Your task to perform on an android device: toggle improve location accuracy Image 0: 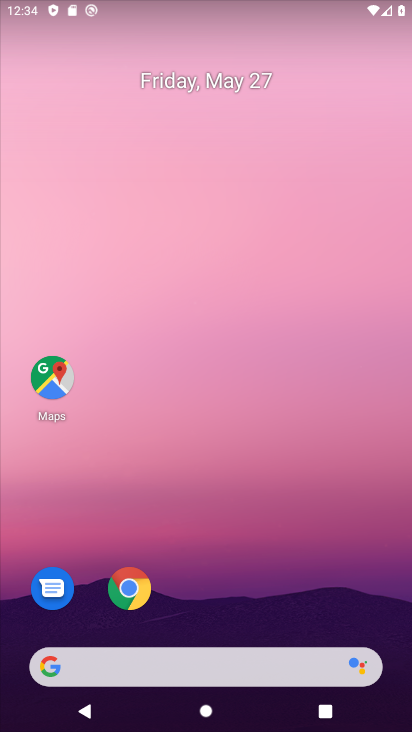
Step 0: press home button
Your task to perform on an android device: toggle improve location accuracy Image 1: 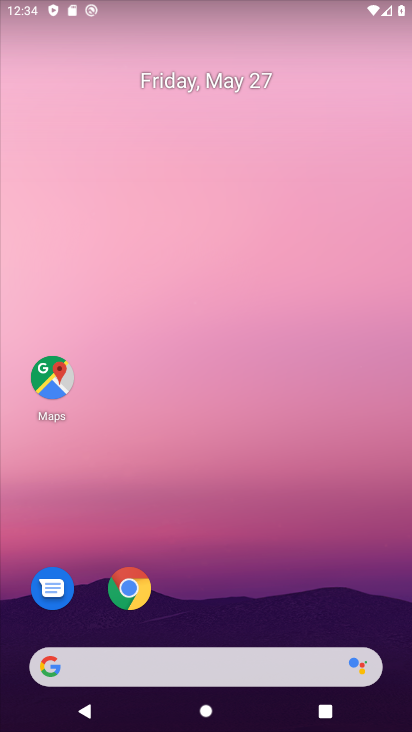
Step 1: drag from (224, 630) to (207, 94)
Your task to perform on an android device: toggle improve location accuracy Image 2: 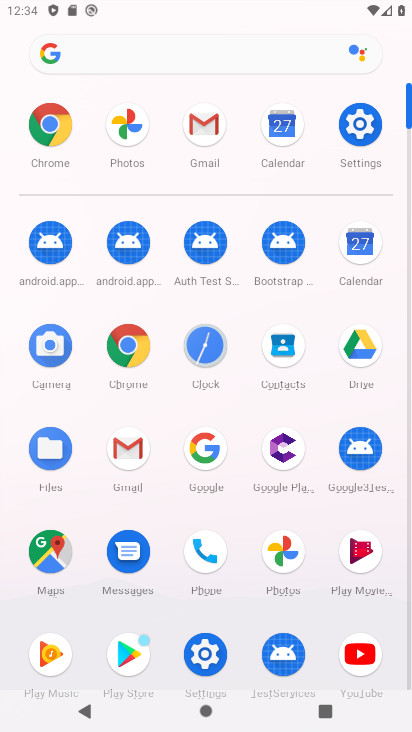
Step 2: click (360, 120)
Your task to perform on an android device: toggle improve location accuracy Image 3: 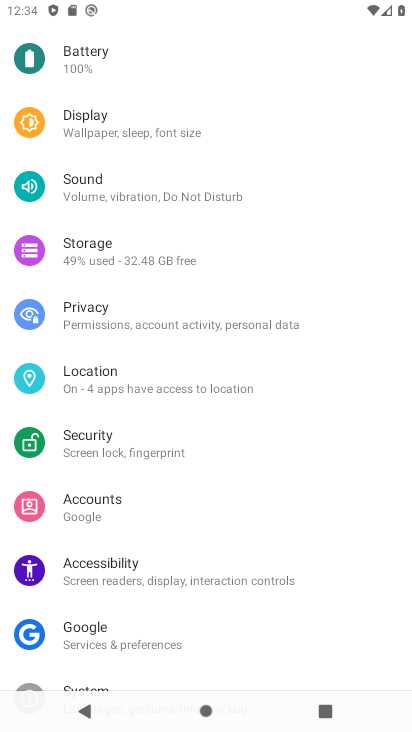
Step 3: click (129, 368)
Your task to perform on an android device: toggle improve location accuracy Image 4: 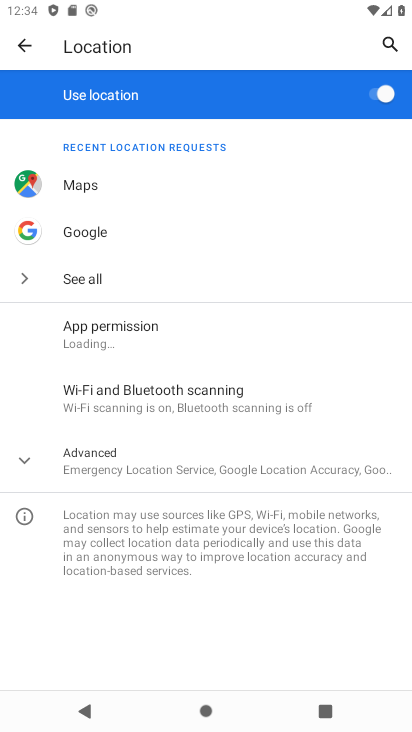
Step 4: click (22, 459)
Your task to perform on an android device: toggle improve location accuracy Image 5: 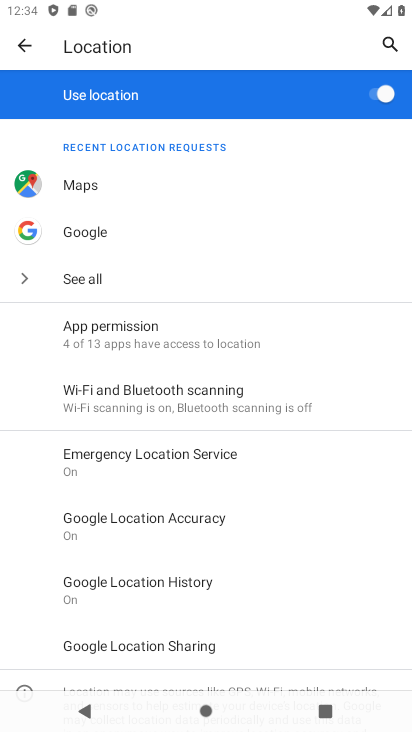
Step 5: click (157, 525)
Your task to perform on an android device: toggle improve location accuracy Image 6: 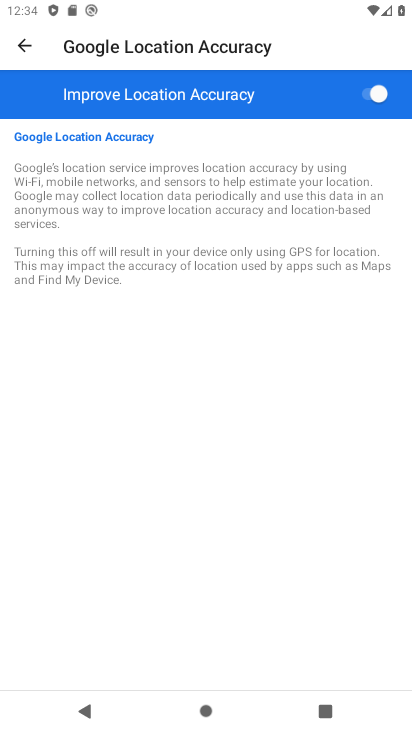
Step 6: click (370, 89)
Your task to perform on an android device: toggle improve location accuracy Image 7: 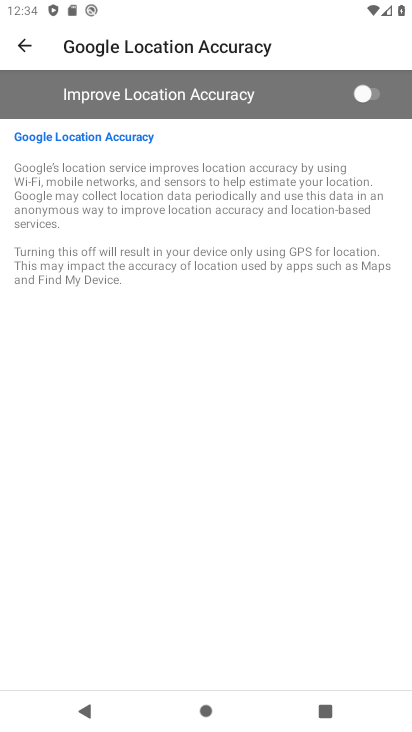
Step 7: task complete